Your task to perform on an android device: turn on the 24-hour format for clock Image 0: 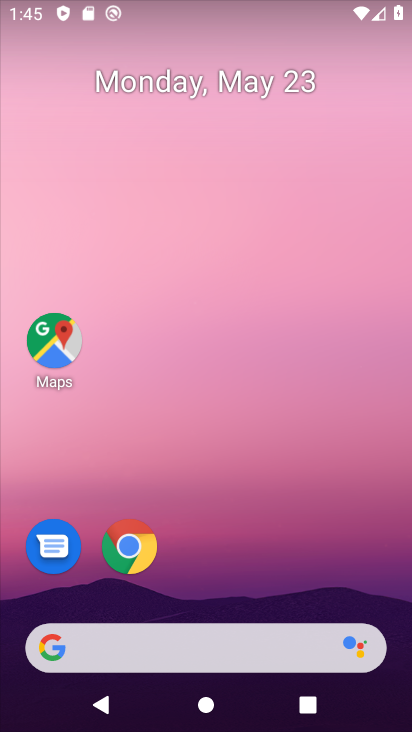
Step 0: drag from (203, 584) to (292, 32)
Your task to perform on an android device: turn on the 24-hour format for clock Image 1: 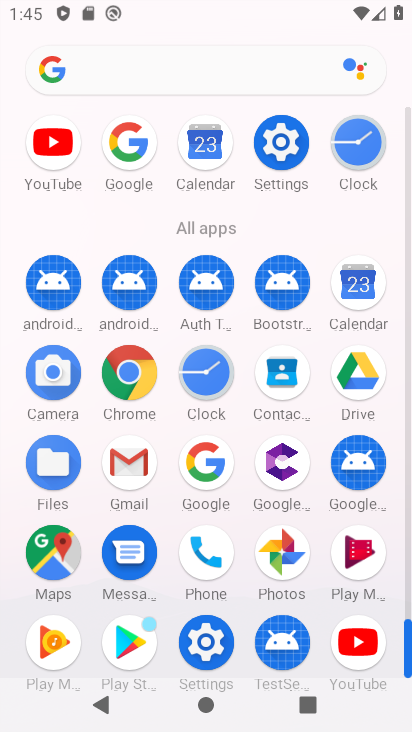
Step 1: click (211, 385)
Your task to perform on an android device: turn on the 24-hour format for clock Image 2: 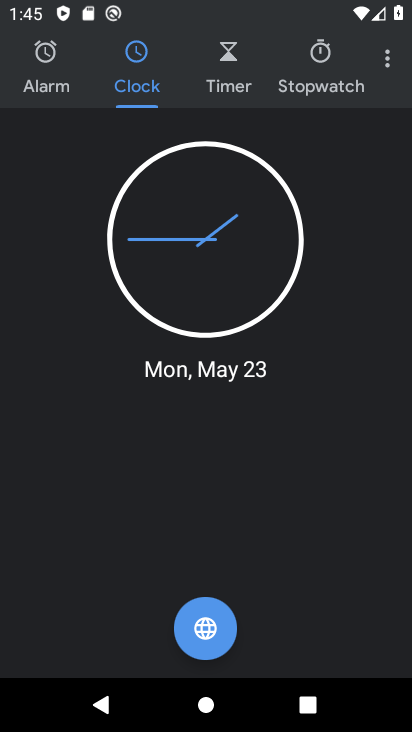
Step 2: click (383, 61)
Your task to perform on an android device: turn on the 24-hour format for clock Image 3: 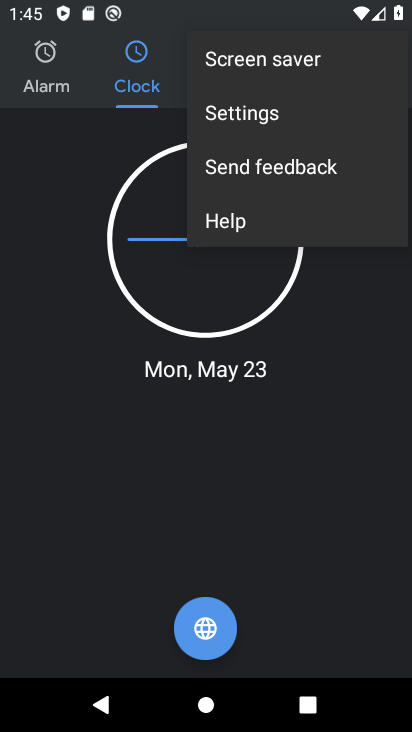
Step 3: click (257, 122)
Your task to perform on an android device: turn on the 24-hour format for clock Image 4: 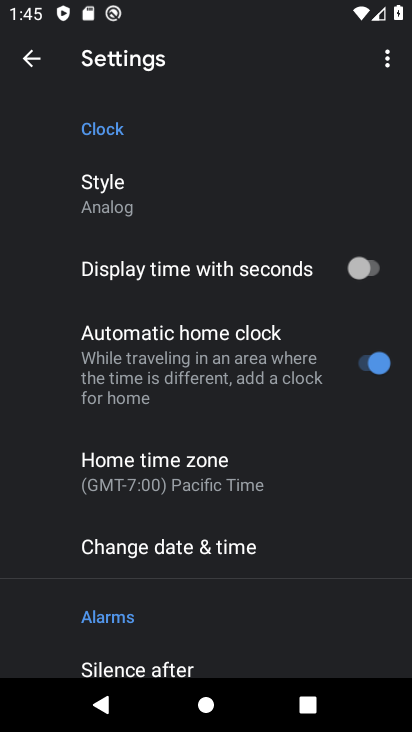
Step 4: click (190, 530)
Your task to perform on an android device: turn on the 24-hour format for clock Image 5: 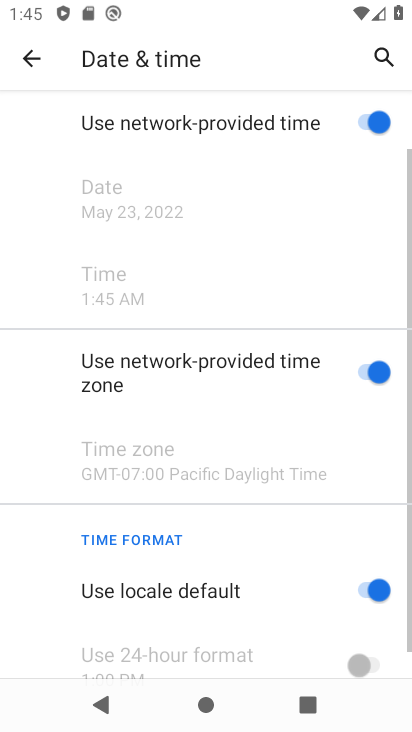
Step 5: drag from (205, 610) to (267, 241)
Your task to perform on an android device: turn on the 24-hour format for clock Image 6: 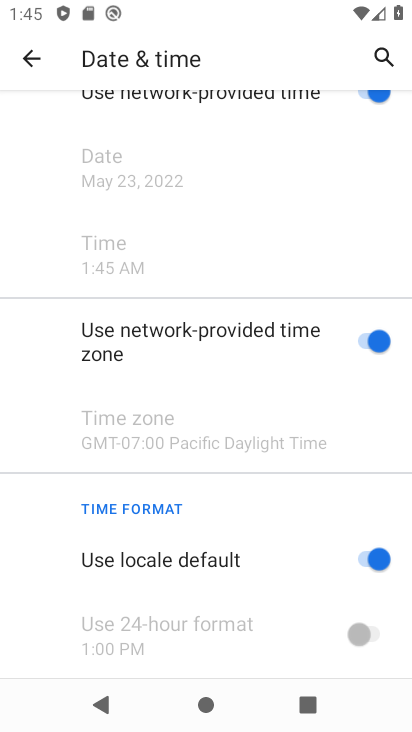
Step 6: click (367, 558)
Your task to perform on an android device: turn on the 24-hour format for clock Image 7: 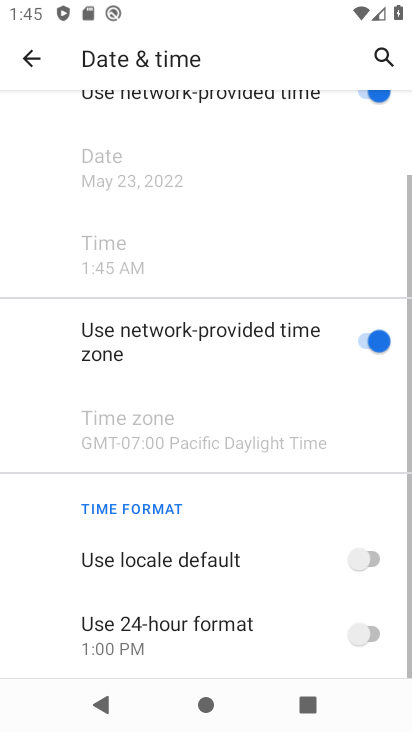
Step 7: click (370, 629)
Your task to perform on an android device: turn on the 24-hour format for clock Image 8: 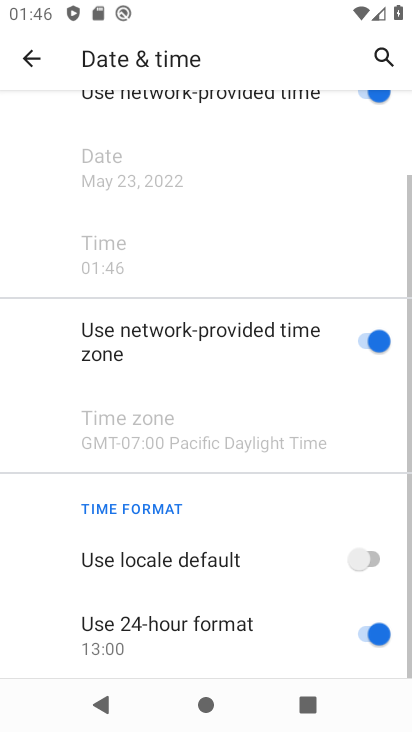
Step 8: task complete